Your task to perform on an android device: toggle notifications settings in the gmail app Image 0: 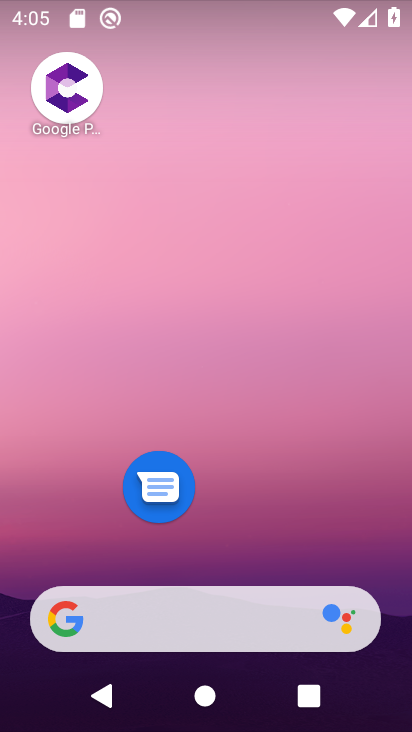
Step 0: drag from (306, 432) to (359, 18)
Your task to perform on an android device: toggle notifications settings in the gmail app Image 1: 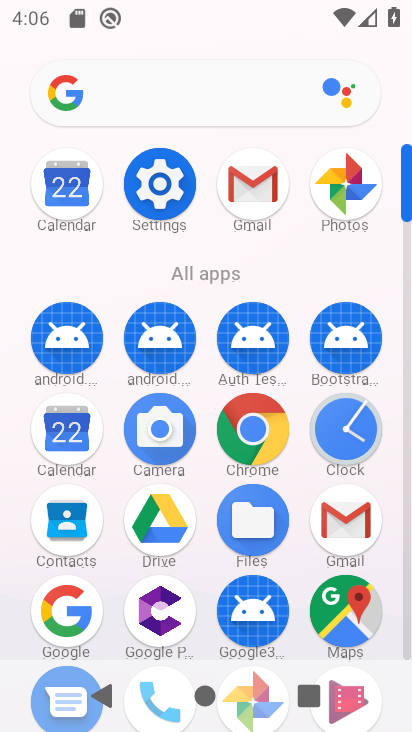
Step 1: click (263, 184)
Your task to perform on an android device: toggle notifications settings in the gmail app Image 2: 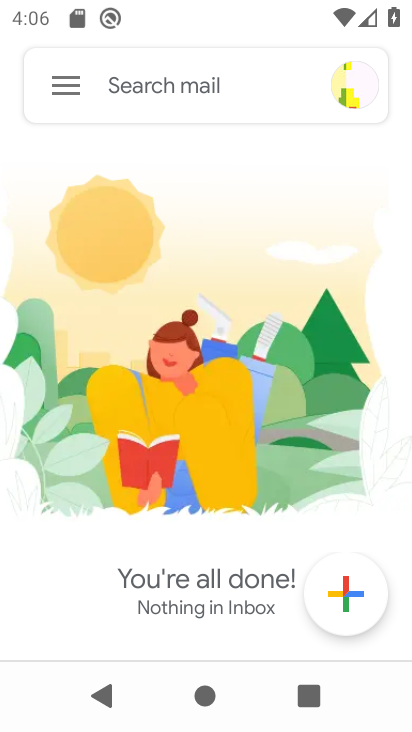
Step 2: click (83, 82)
Your task to perform on an android device: toggle notifications settings in the gmail app Image 3: 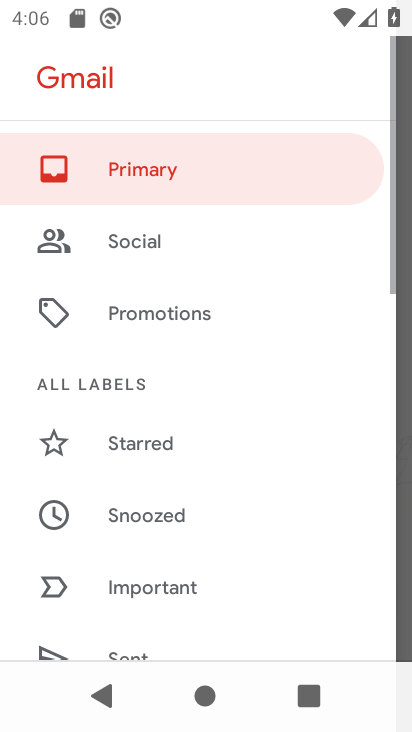
Step 3: drag from (199, 443) to (310, 135)
Your task to perform on an android device: toggle notifications settings in the gmail app Image 4: 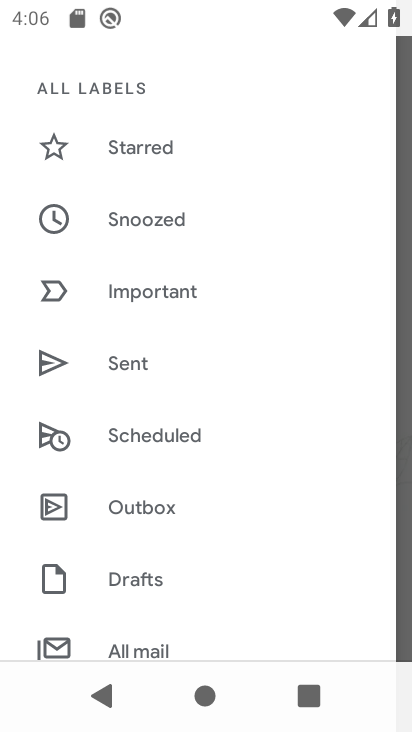
Step 4: drag from (193, 488) to (212, 139)
Your task to perform on an android device: toggle notifications settings in the gmail app Image 5: 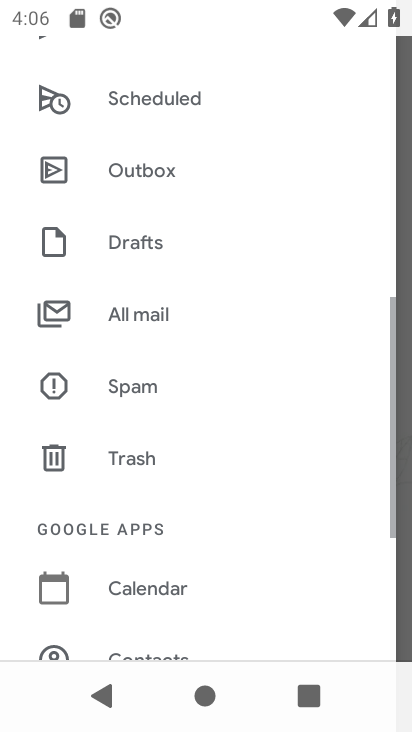
Step 5: drag from (178, 564) to (223, 247)
Your task to perform on an android device: toggle notifications settings in the gmail app Image 6: 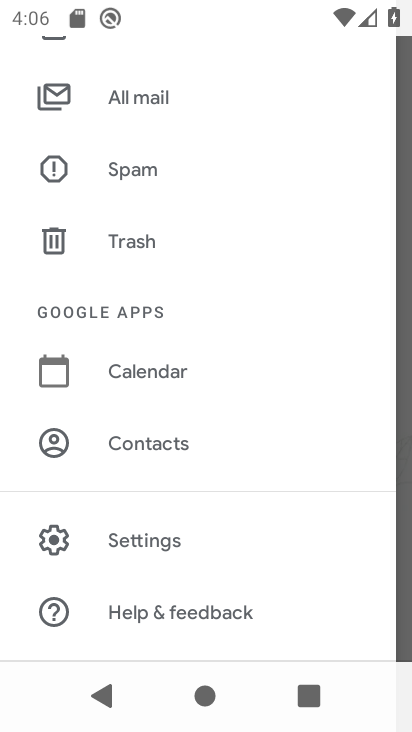
Step 6: click (259, 538)
Your task to perform on an android device: toggle notifications settings in the gmail app Image 7: 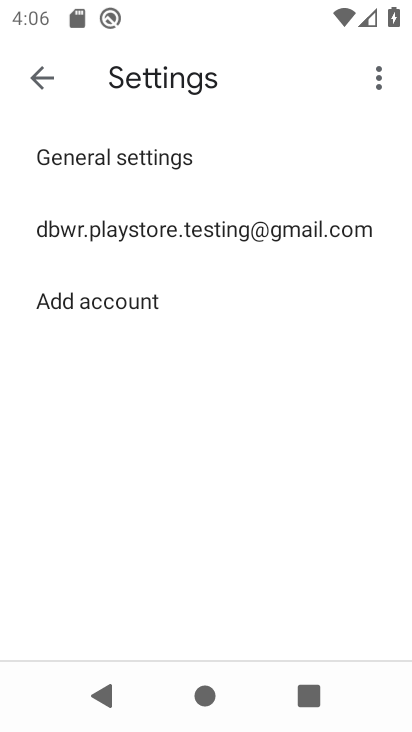
Step 7: click (139, 217)
Your task to perform on an android device: toggle notifications settings in the gmail app Image 8: 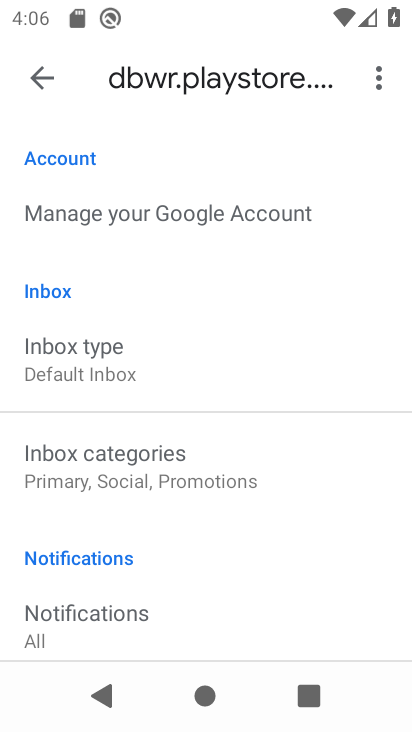
Step 8: drag from (134, 605) to (231, 158)
Your task to perform on an android device: toggle notifications settings in the gmail app Image 9: 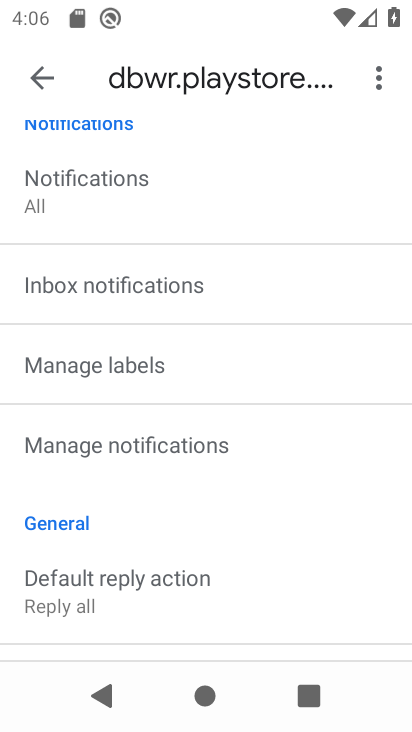
Step 9: click (191, 451)
Your task to perform on an android device: toggle notifications settings in the gmail app Image 10: 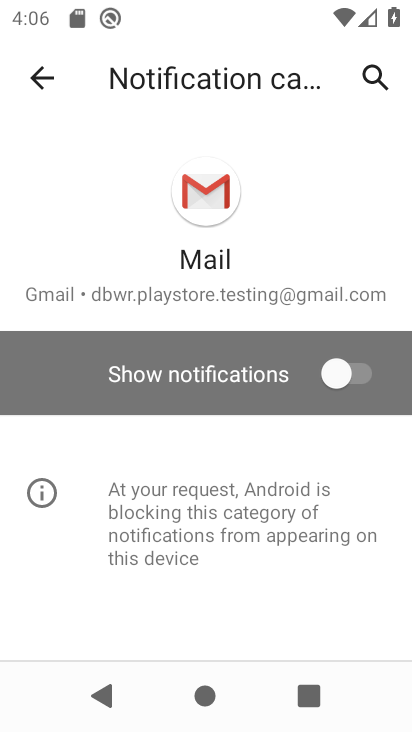
Step 10: click (326, 371)
Your task to perform on an android device: toggle notifications settings in the gmail app Image 11: 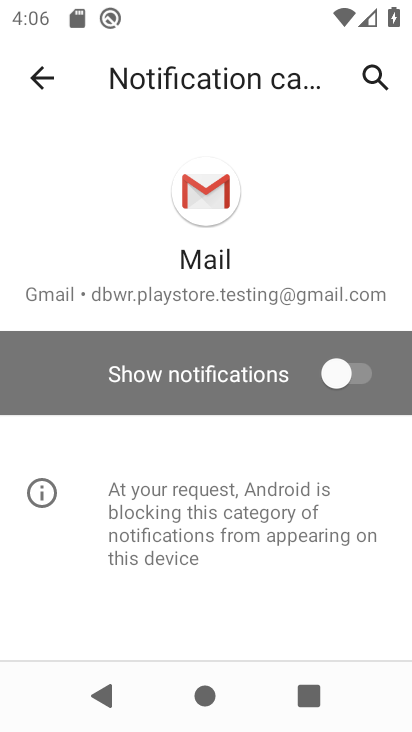
Step 11: click (352, 375)
Your task to perform on an android device: toggle notifications settings in the gmail app Image 12: 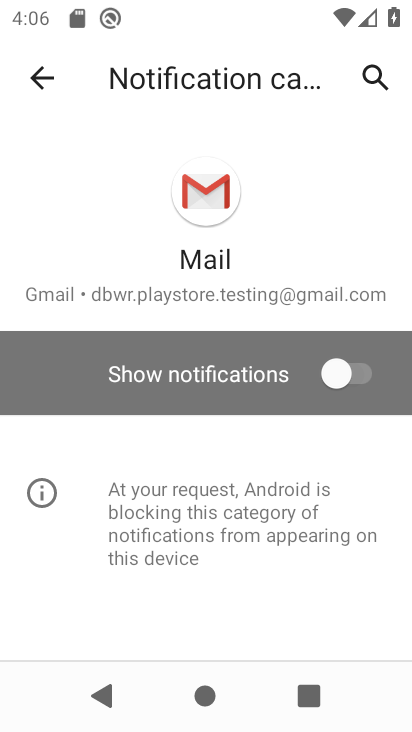
Step 12: click (353, 375)
Your task to perform on an android device: toggle notifications settings in the gmail app Image 13: 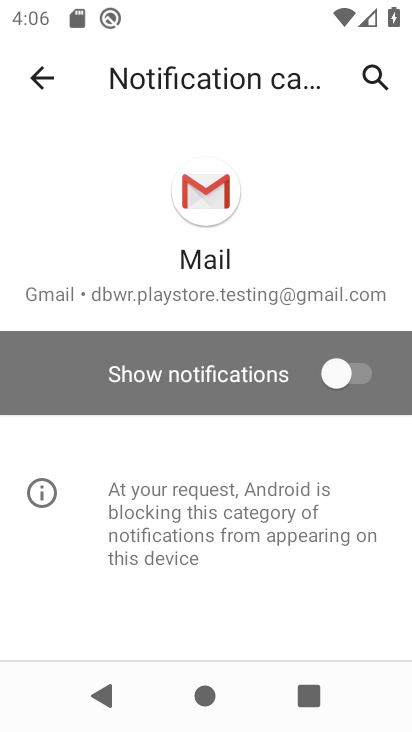
Step 13: task complete